Your task to perform on an android device: clear history in the chrome app Image 0: 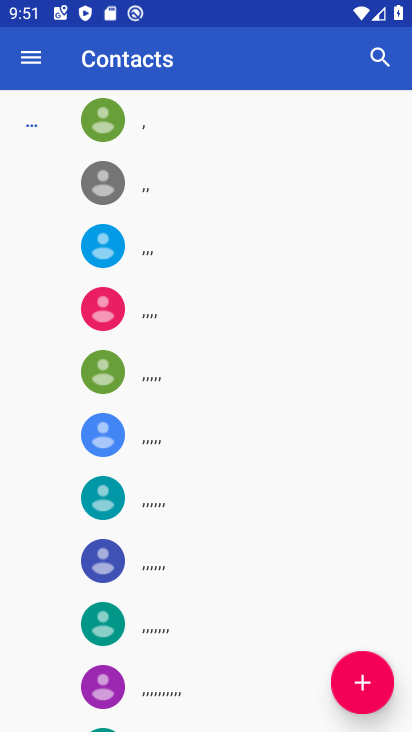
Step 0: press back button
Your task to perform on an android device: clear history in the chrome app Image 1: 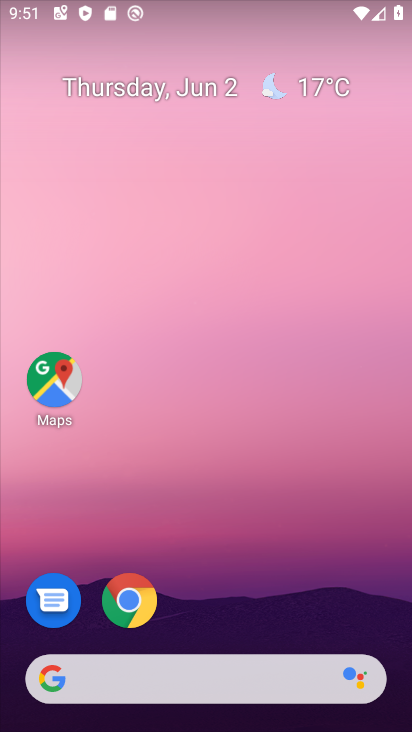
Step 1: drag from (236, 614) to (219, 7)
Your task to perform on an android device: clear history in the chrome app Image 2: 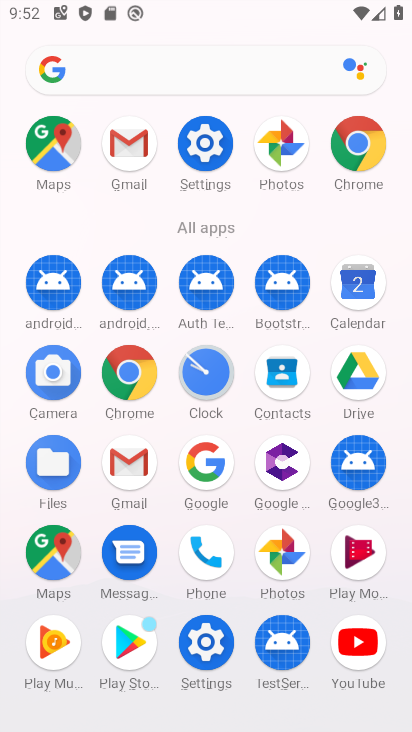
Step 2: click (357, 137)
Your task to perform on an android device: clear history in the chrome app Image 3: 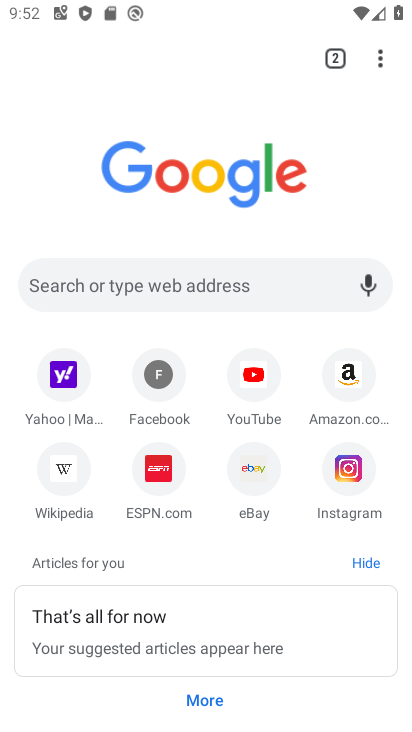
Step 3: drag from (381, 62) to (201, 319)
Your task to perform on an android device: clear history in the chrome app Image 4: 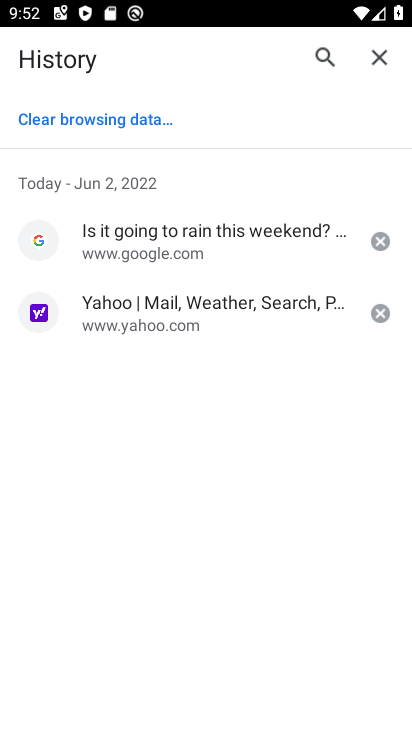
Step 4: click (104, 114)
Your task to perform on an android device: clear history in the chrome app Image 5: 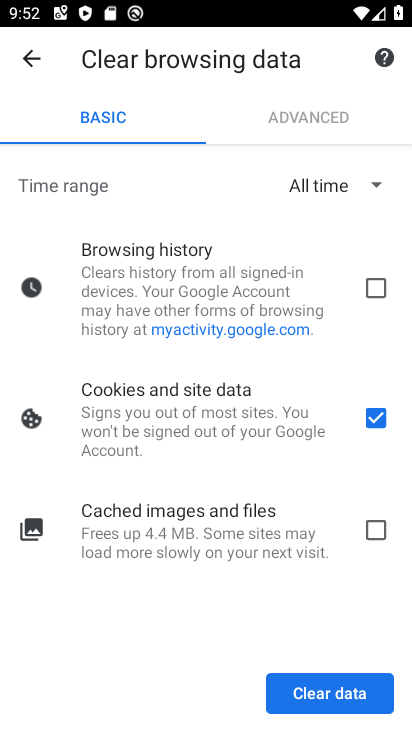
Step 5: click (313, 684)
Your task to perform on an android device: clear history in the chrome app Image 6: 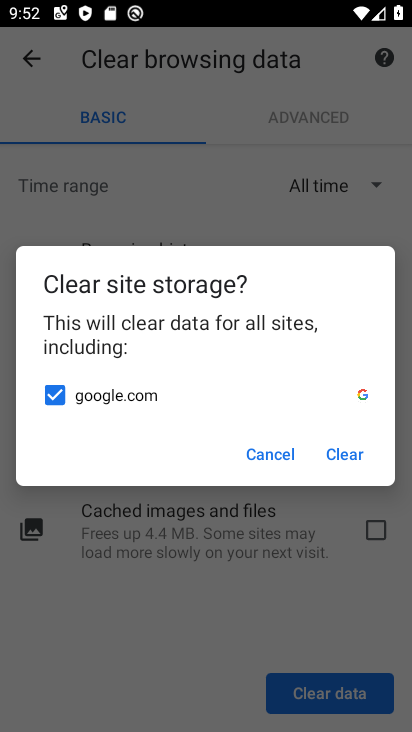
Step 6: click (335, 449)
Your task to perform on an android device: clear history in the chrome app Image 7: 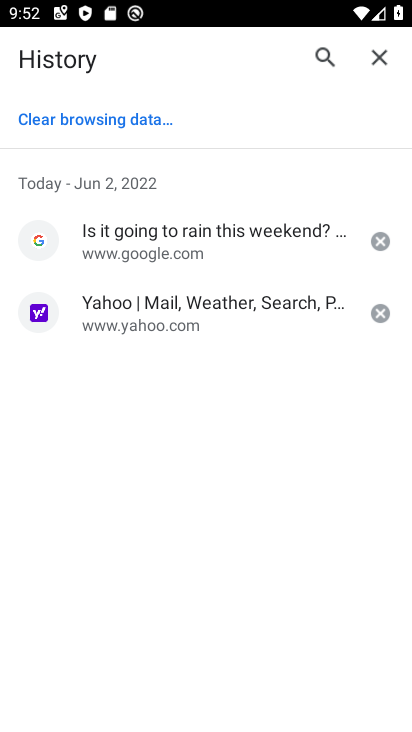
Step 7: task complete